Your task to perform on an android device: see sites visited before in the chrome app Image 0: 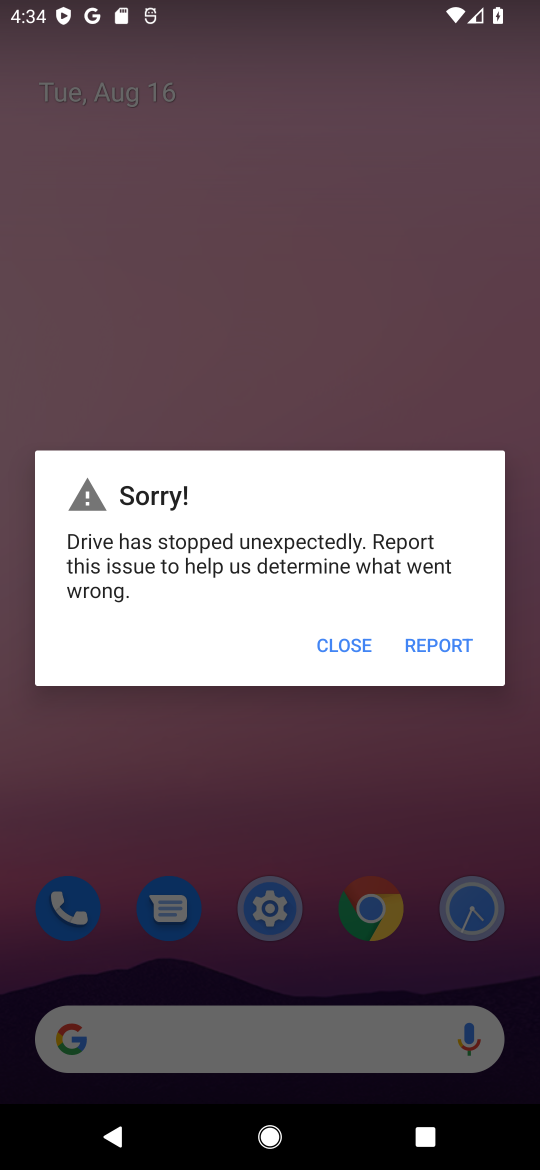
Step 0: click (349, 644)
Your task to perform on an android device: see sites visited before in the chrome app Image 1: 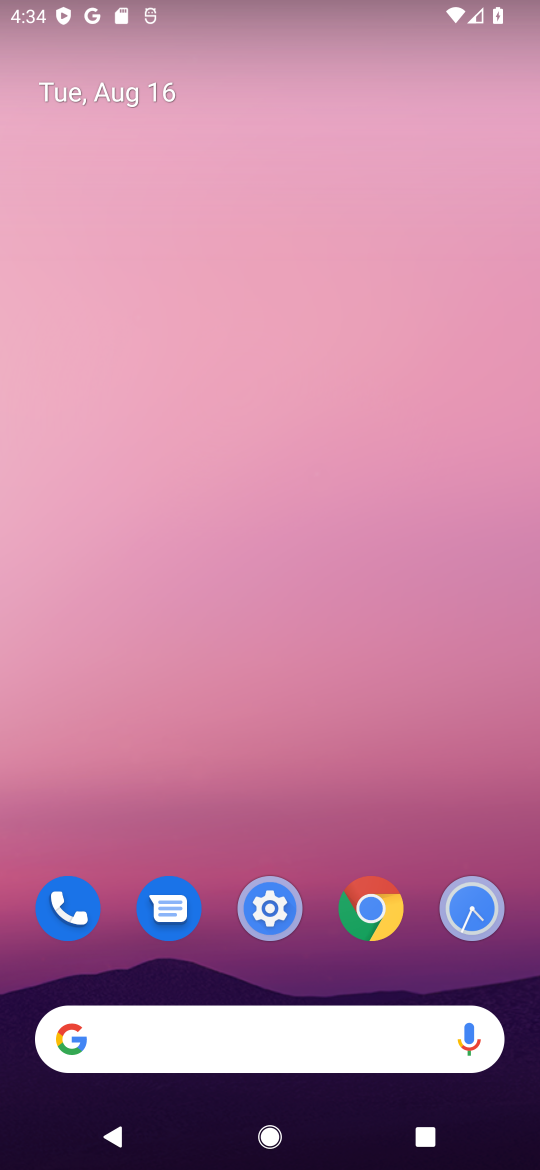
Step 1: click (380, 889)
Your task to perform on an android device: see sites visited before in the chrome app Image 2: 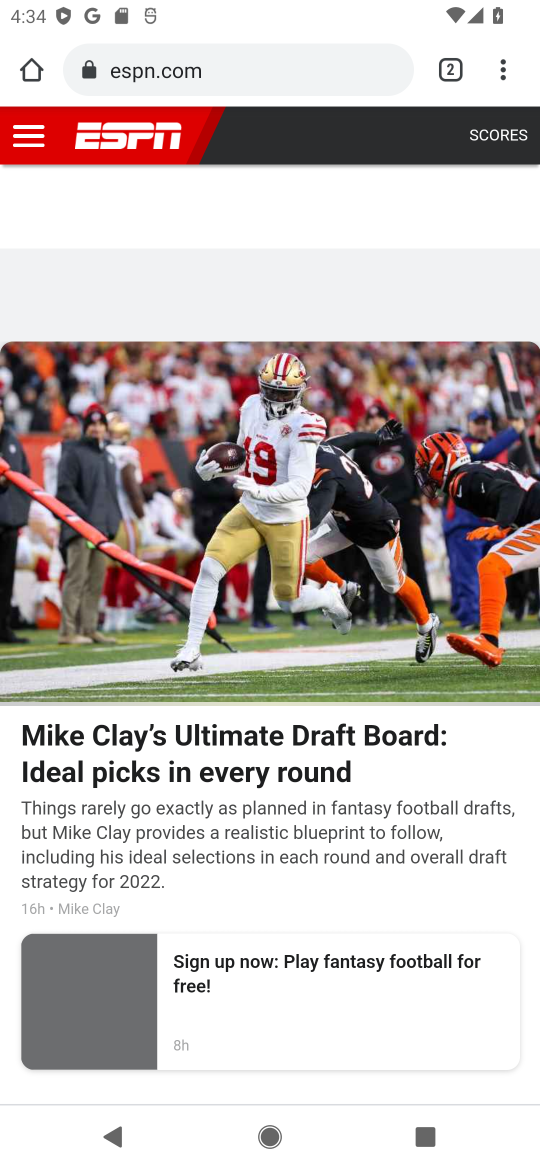
Step 2: task complete